Your task to perform on an android device: Open Android settings Image 0: 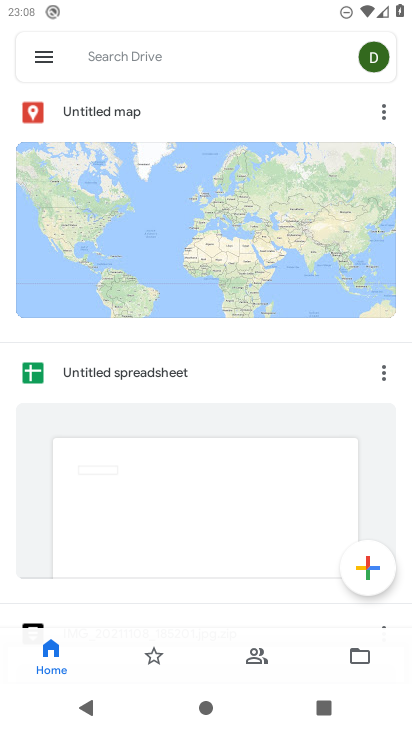
Step 0: press home button
Your task to perform on an android device: Open Android settings Image 1: 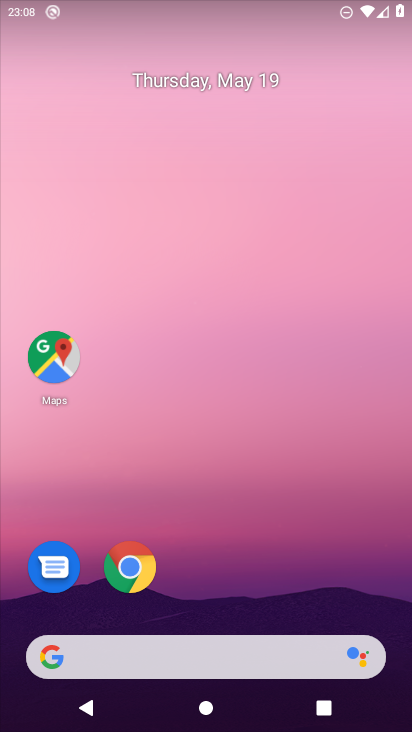
Step 1: drag from (215, 613) to (212, 0)
Your task to perform on an android device: Open Android settings Image 2: 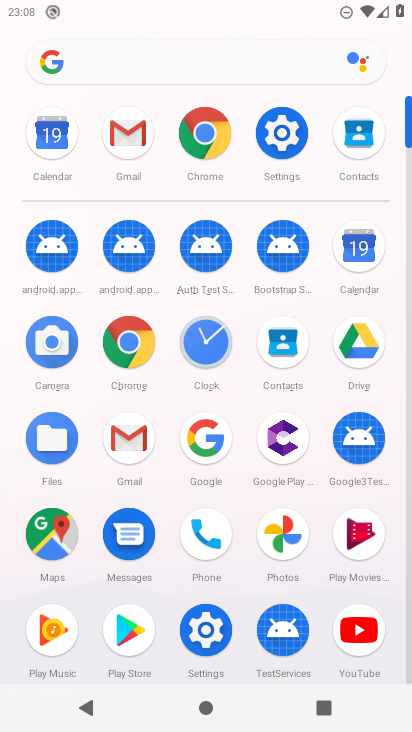
Step 2: click (278, 127)
Your task to perform on an android device: Open Android settings Image 3: 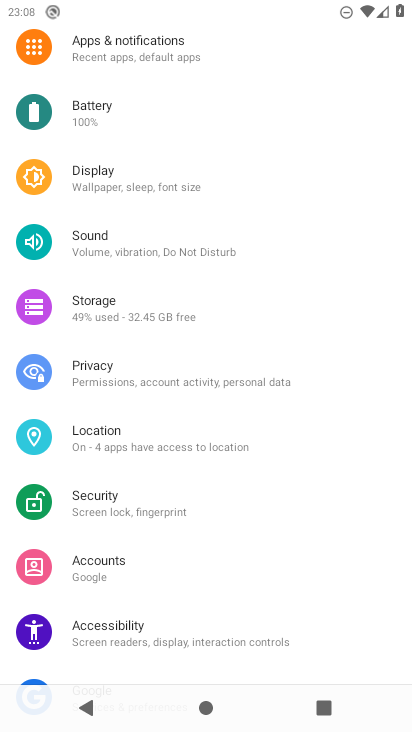
Step 3: drag from (178, 618) to (195, 46)
Your task to perform on an android device: Open Android settings Image 4: 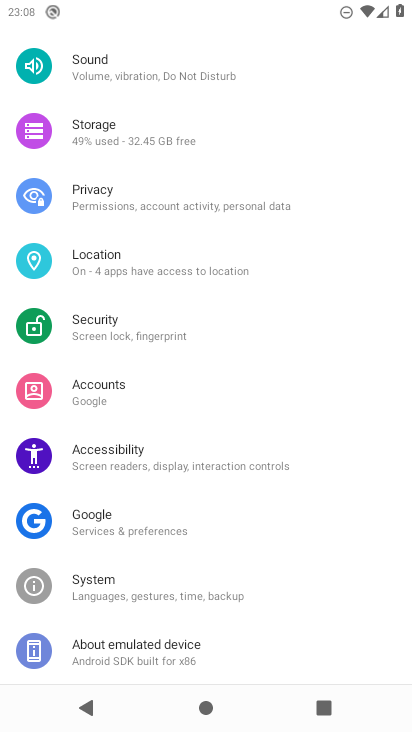
Step 4: click (149, 650)
Your task to perform on an android device: Open Android settings Image 5: 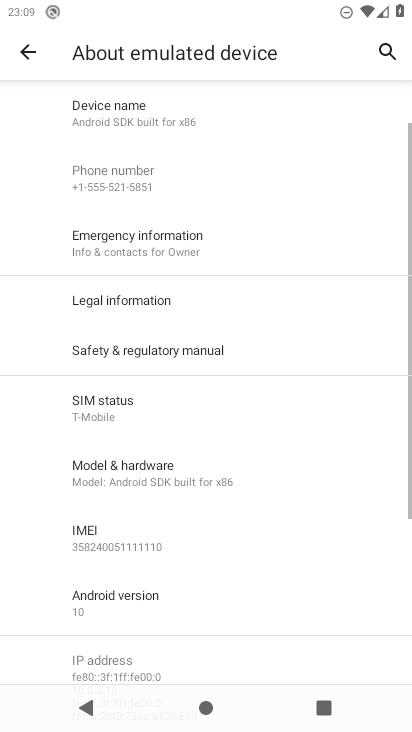
Step 5: click (154, 594)
Your task to perform on an android device: Open Android settings Image 6: 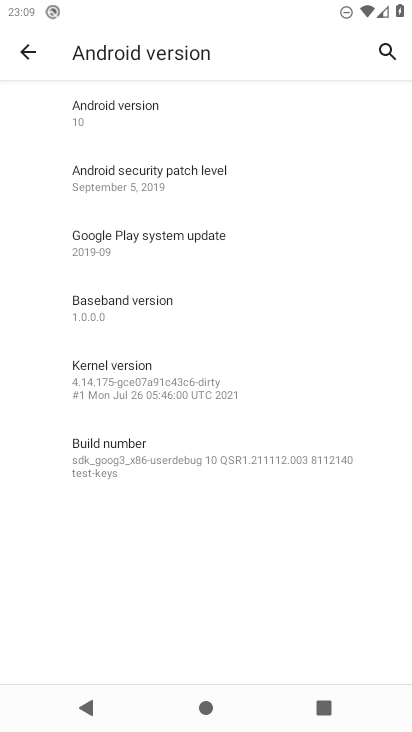
Step 6: task complete